Your task to perform on an android device: Go to Yahoo.com Image 0: 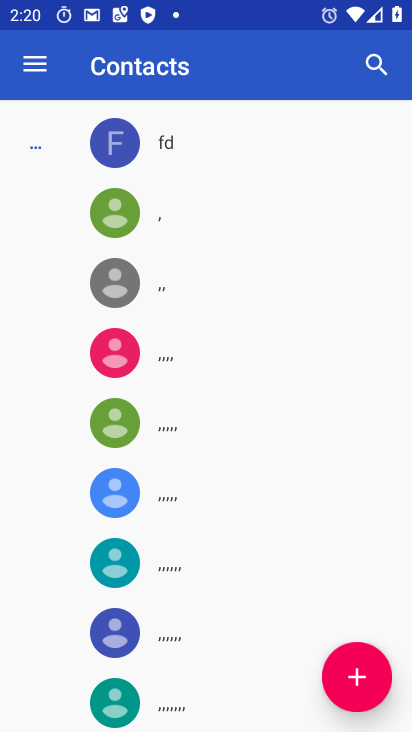
Step 0: press home button
Your task to perform on an android device: Go to Yahoo.com Image 1: 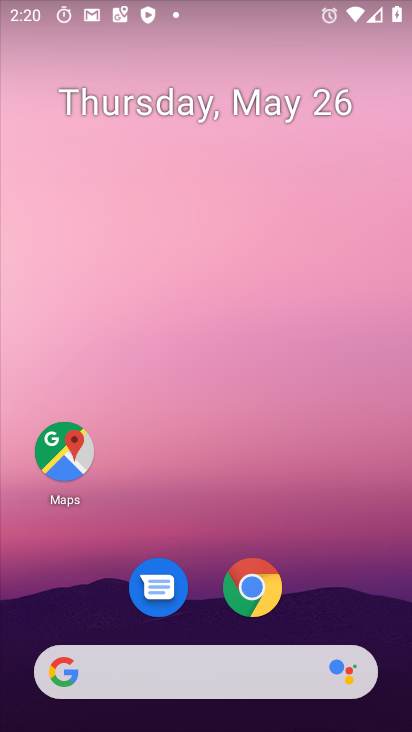
Step 1: drag from (273, 681) to (312, 3)
Your task to perform on an android device: Go to Yahoo.com Image 2: 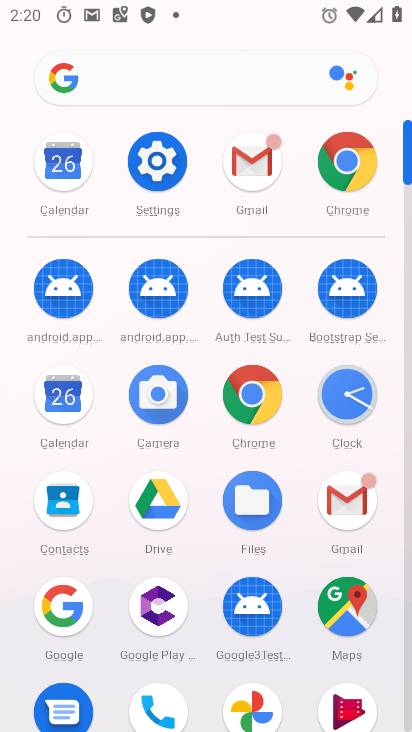
Step 2: click (260, 383)
Your task to perform on an android device: Go to Yahoo.com Image 3: 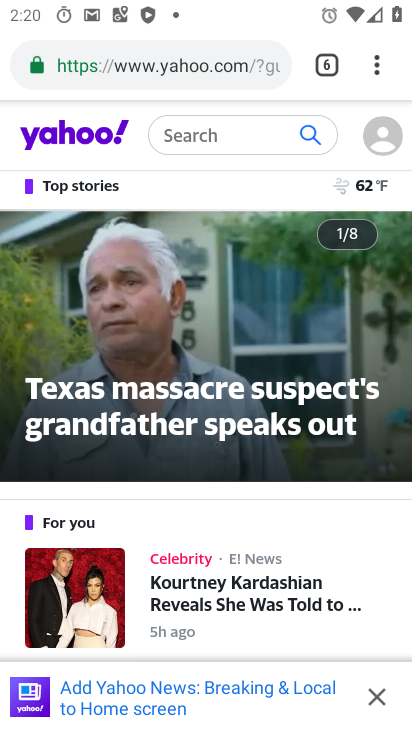
Step 3: click (135, 72)
Your task to perform on an android device: Go to Yahoo.com Image 4: 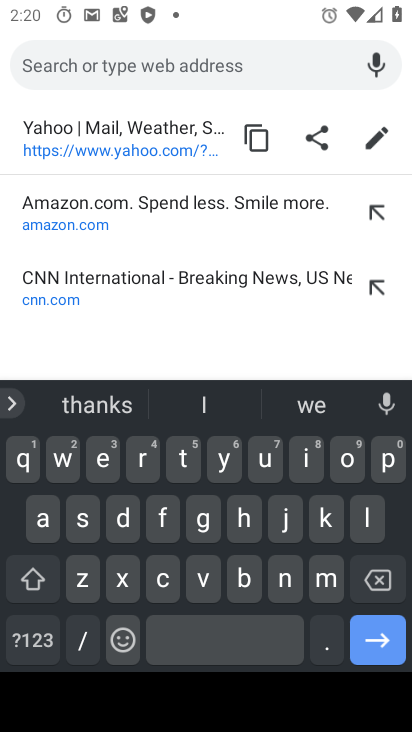
Step 4: click (101, 143)
Your task to perform on an android device: Go to Yahoo.com Image 5: 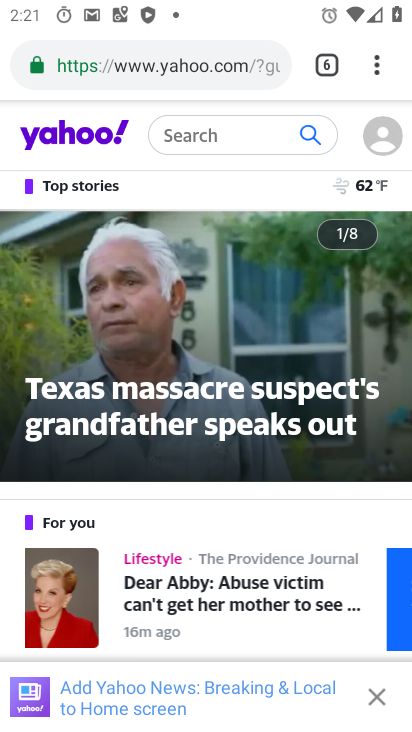
Step 5: task complete